Your task to perform on an android device: Open settings on Google Maps Image 0: 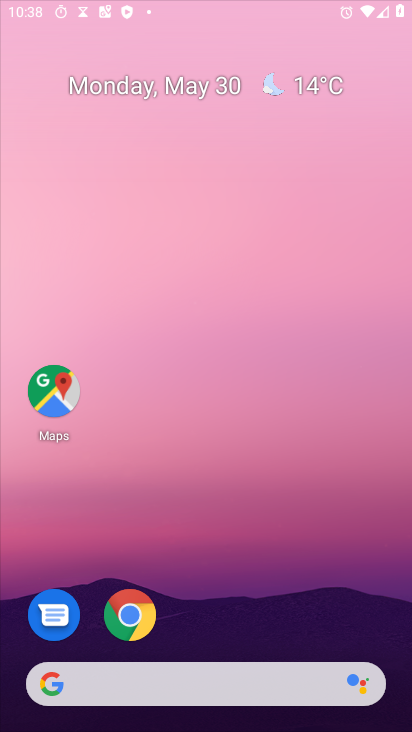
Step 0: drag from (324, 613) to (319, 53)
Your task to perform on an android device: Open settings on Google Maps Image 1: 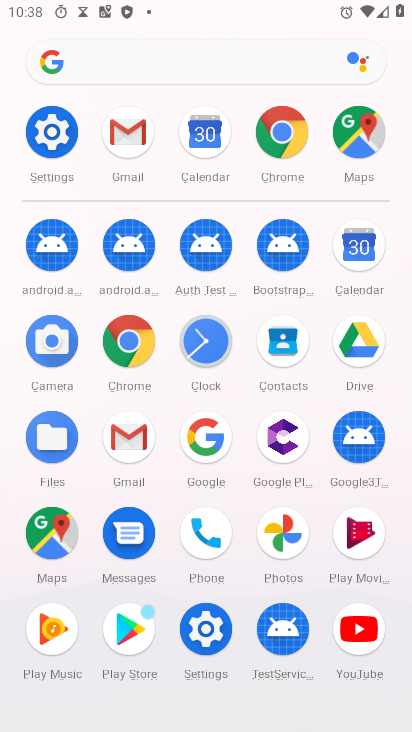
Step 1: click (353, 151)
Your task to perform on an android device: Open settings on Google Maps Image 2: 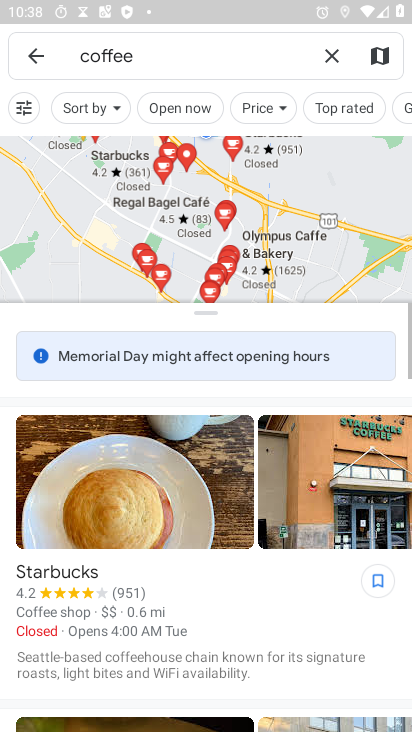
Step 2: click (28, 49)
Your task to perform on an android device: Open settings on Google Maps Image 3: 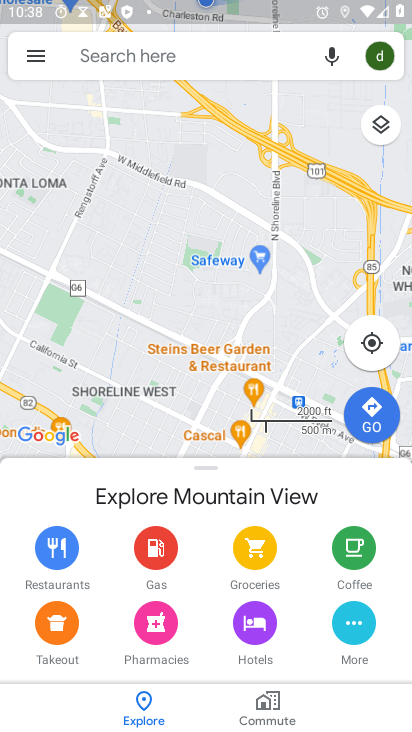
Step 3: click (37, 58)
Your task to perform on an android device: Open settings on Google Maps Image 4: 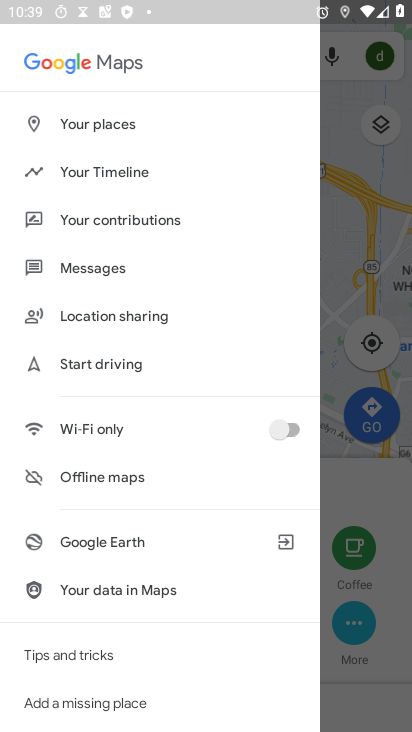
Step 4: drag from (122, 582) to (132, 165)
Your task to perform on an android device: Open settings on Google Maps Image 5: 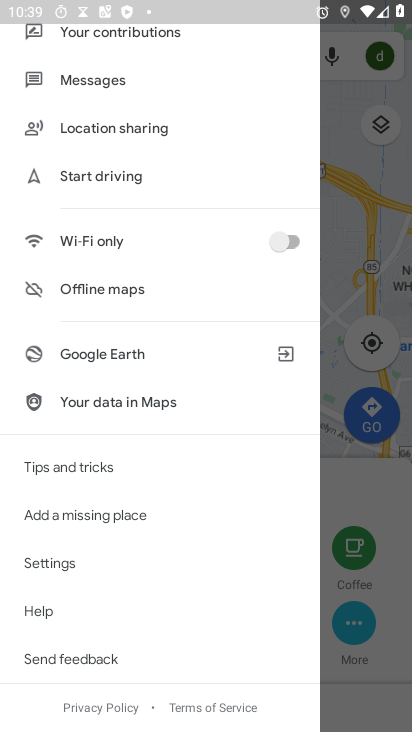
Step 5: click (67, 569)
Your task to perform on an android device: Open settings on Google Maps Image 6: 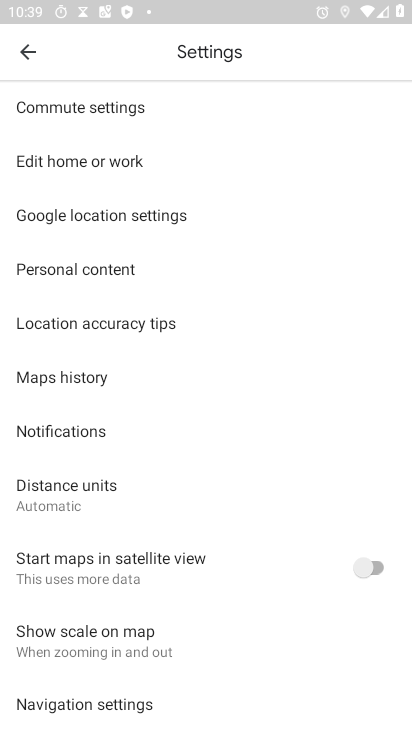
Step 6: task complete